Your task to perform on an android device: turn on wifi Image 0: 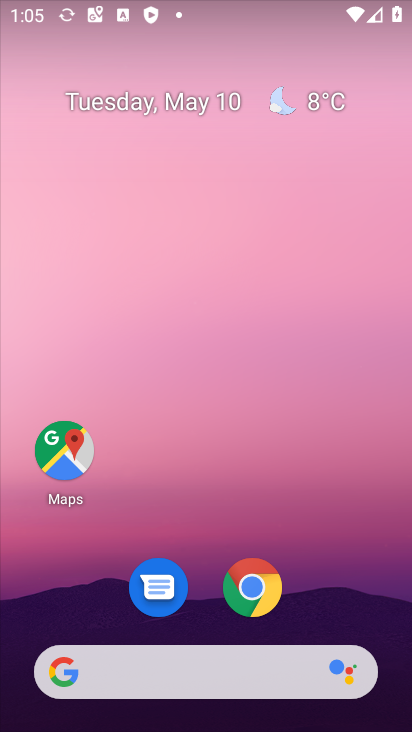
Step 0: drag from (391, 654) to (347, 283)
Your task to perform on an android device: turn on wifi Image 1: 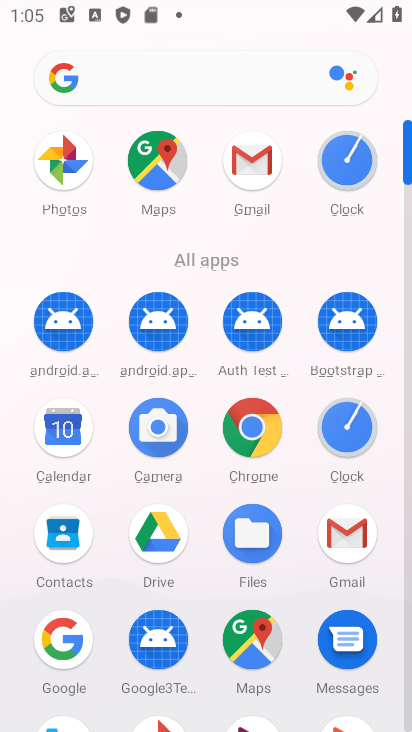
Step 1: drag from (407, 126) to (406, 56)
Your task to perform on an android device: turn on wifi Image 2: 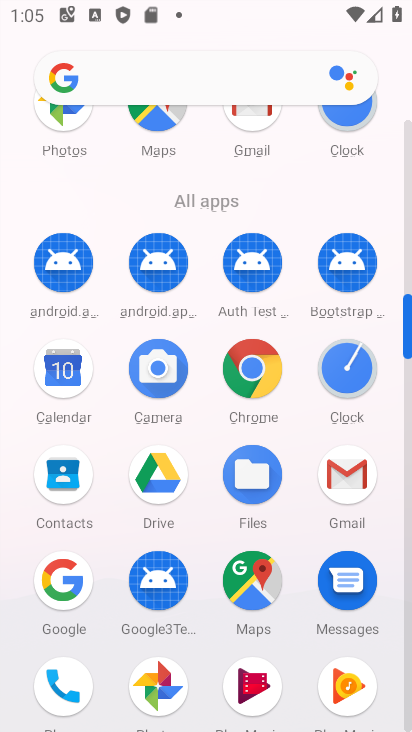
Step 2: drag from (410, 301) to (400, 179)
Your task to perform on an android device: turn on wifi Image 3: 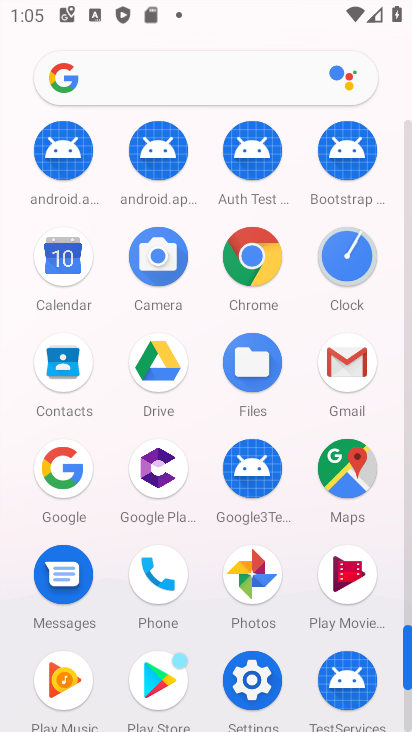
Step 3: click (253, 680)
Your task to perform on an android device: turn on wifi Image 4: 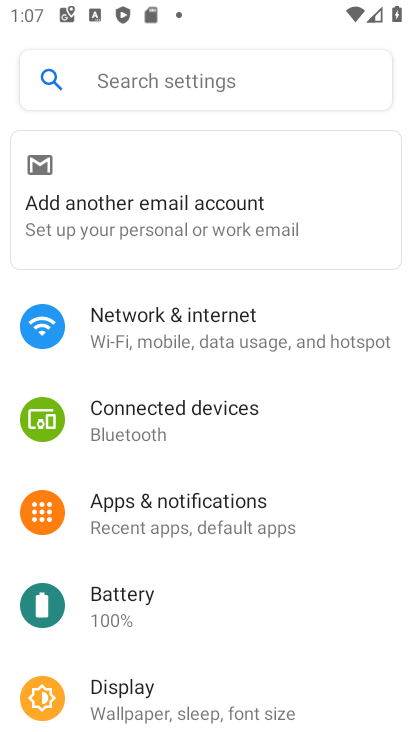
Step 4: click (150, 330)
Your task to perform on an android device: turn on wifi Image 5: 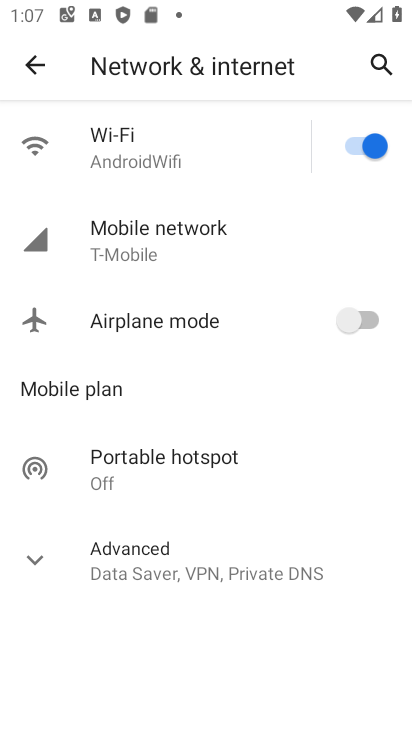
Step 5: task complete